Your task to perform on an android device: check google app version Image 0: 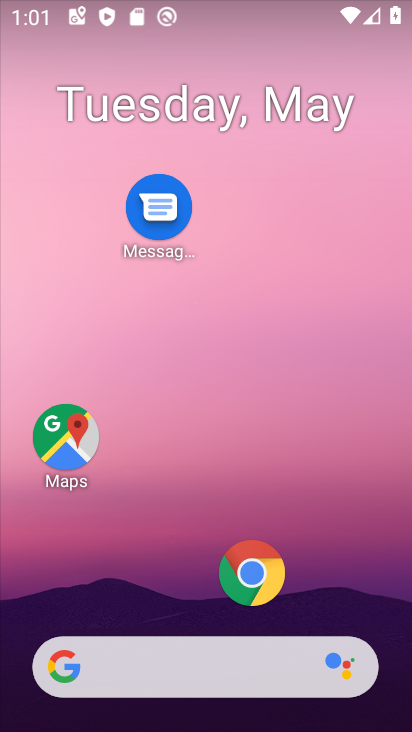
Step 0: click (186, 663)
Your task to perform on an android device: check google app version Image 1: 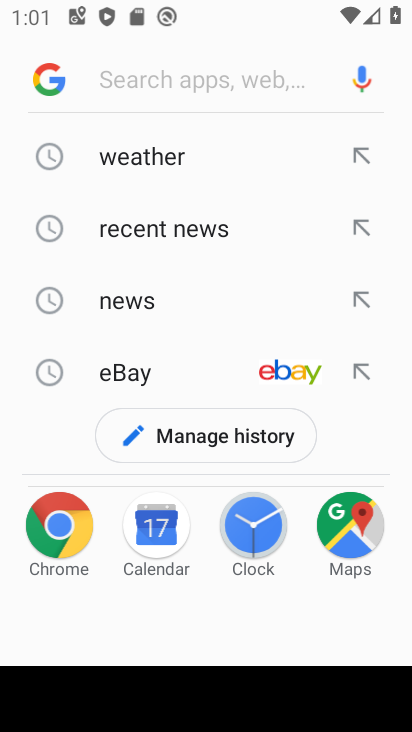
Step 1: click (62, 76)
Your task to perform on an android device: check google app version Image 2: 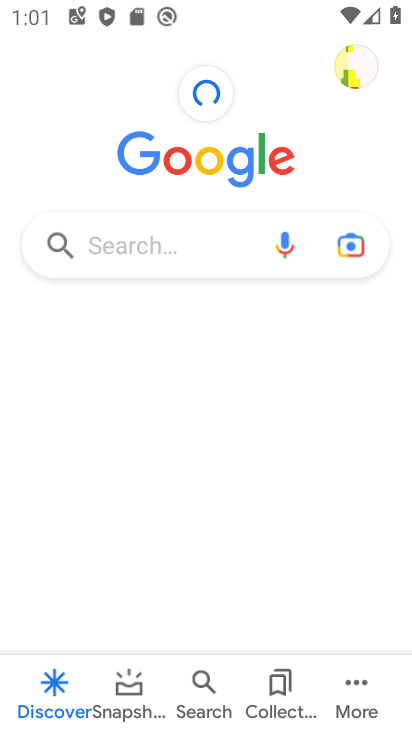
Step 2: drag from (359, 677) to (321, 677)
Your task to perform on an android device: check google app version Image 3: 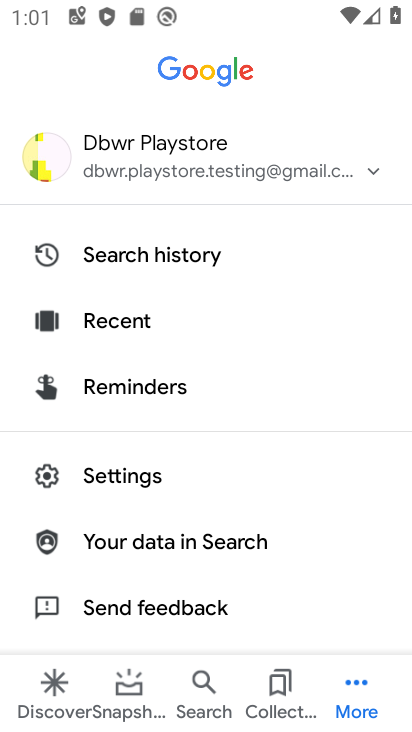
Step 3: click (172, 480)
Your task to perform on an android device: check google app version Image 4: 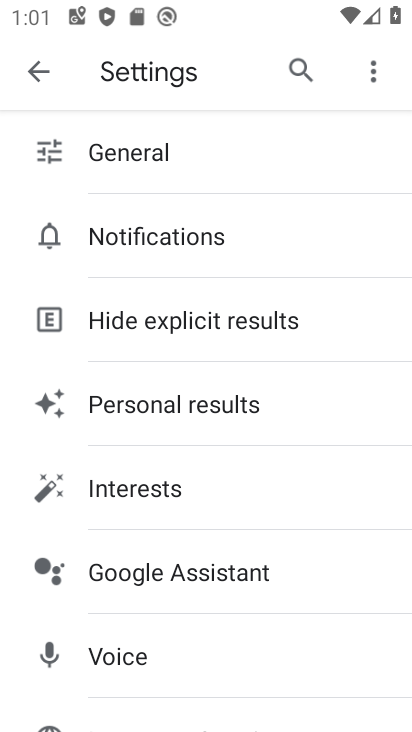
Step 4: drag from (171, 539) to (261, 177)
Your task to perform on an android device: check google app version Image 5: 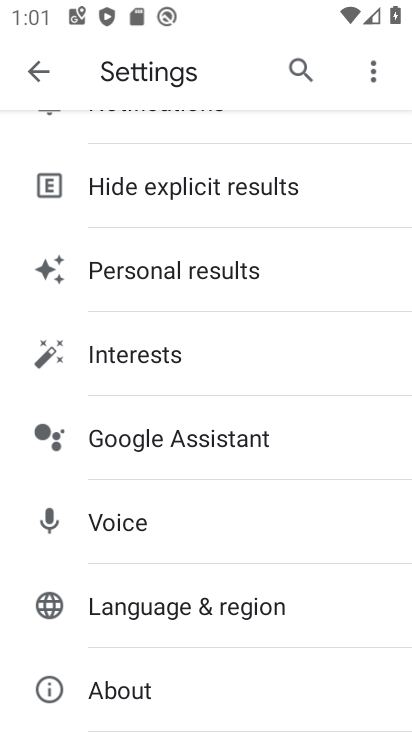
Step 5: click (157, 698)
Your task to perform on an android device: check google app version Image 6: 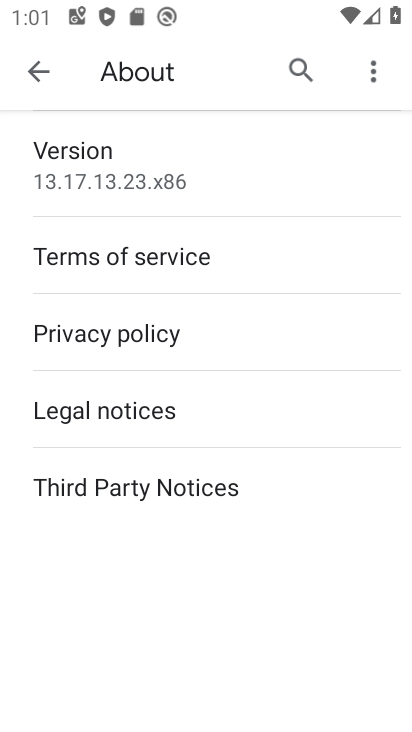
Step 6: task complete